Your task to perform on an android device: View the shopping cart on target. Add "bose soundlink" to the cart on target Image 0: 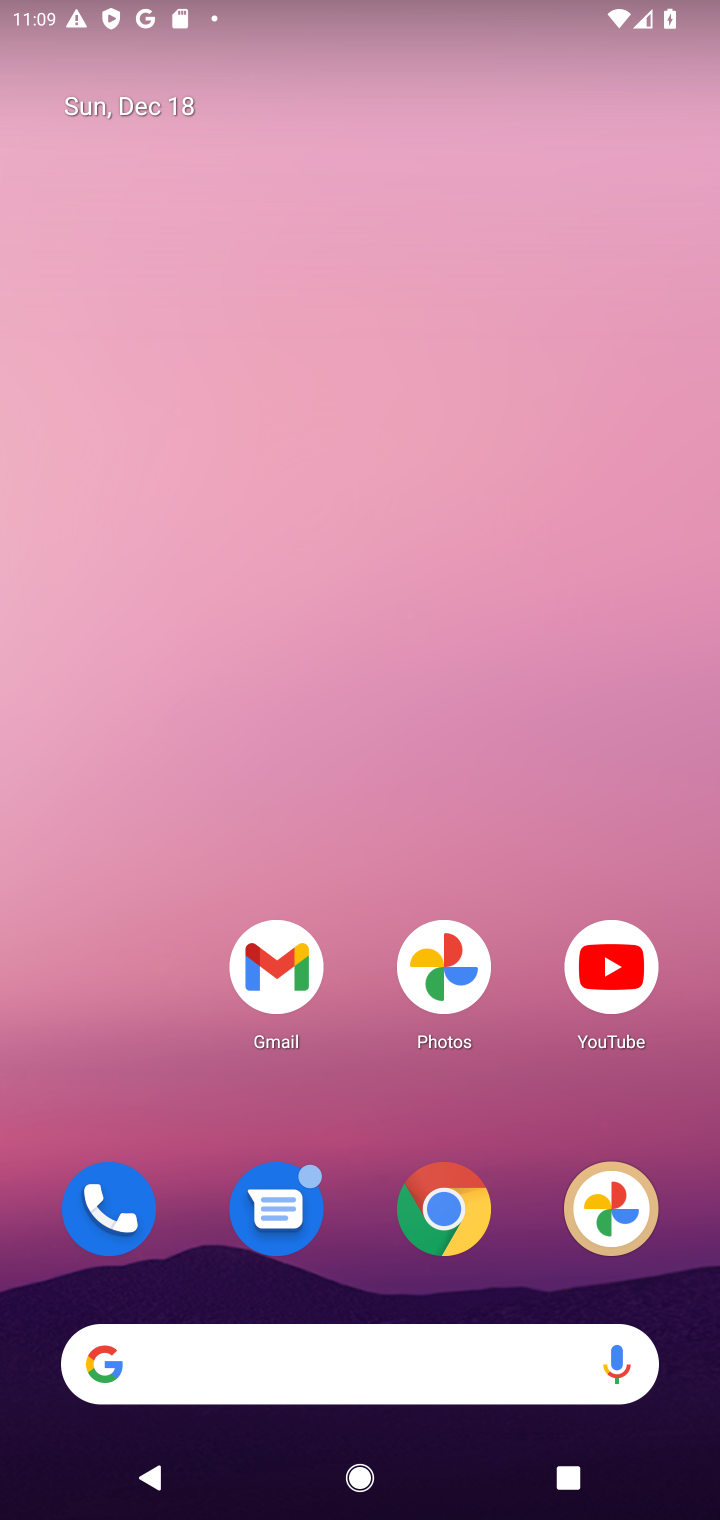
Step 0: click (439, 1220)
Your task to perform on an android device: View the shopping cart on target. Add "bose soundlink" to the cart on target Image 1: 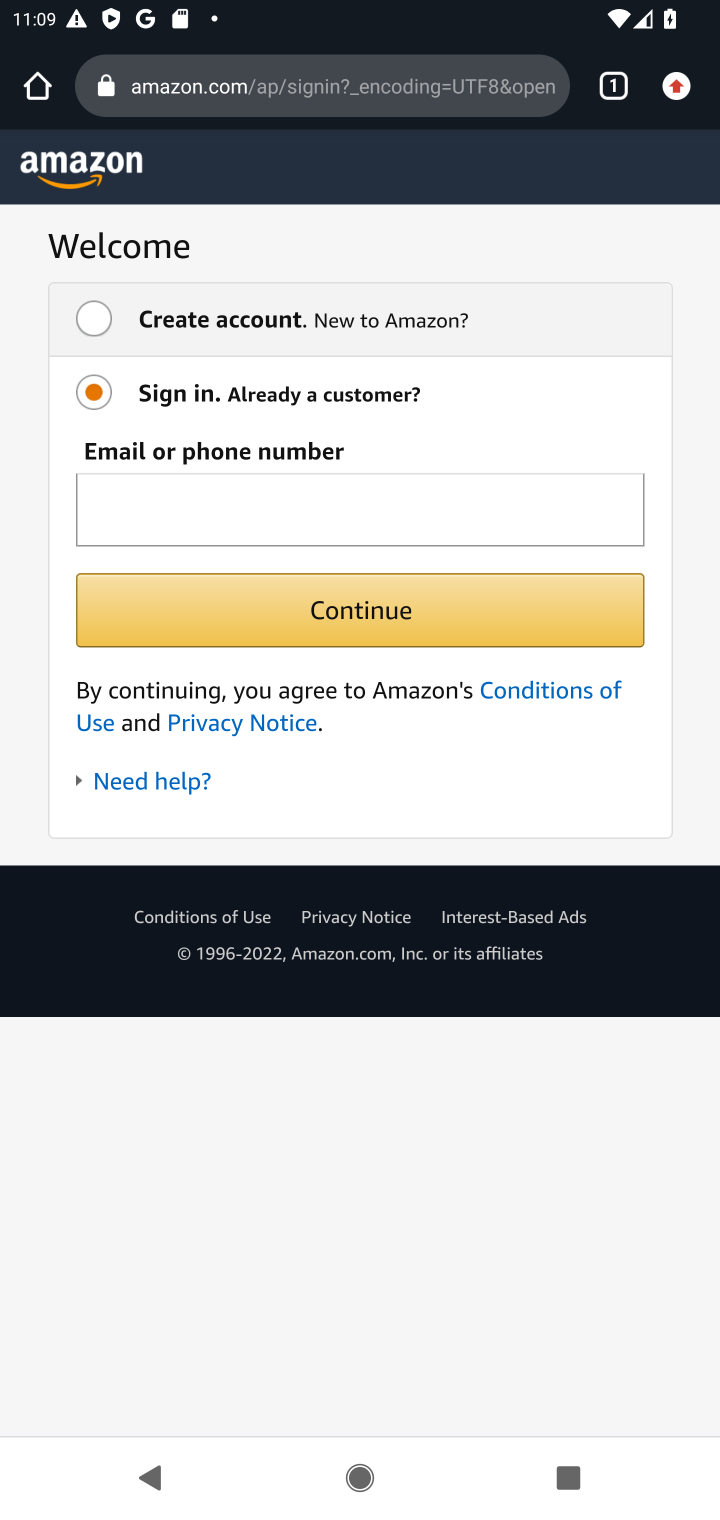
Step 1: click (397, 82)
Your task to perform on an android device: View the shopping cart on target. Add "bose soundlink" to the cart on target Image 2: 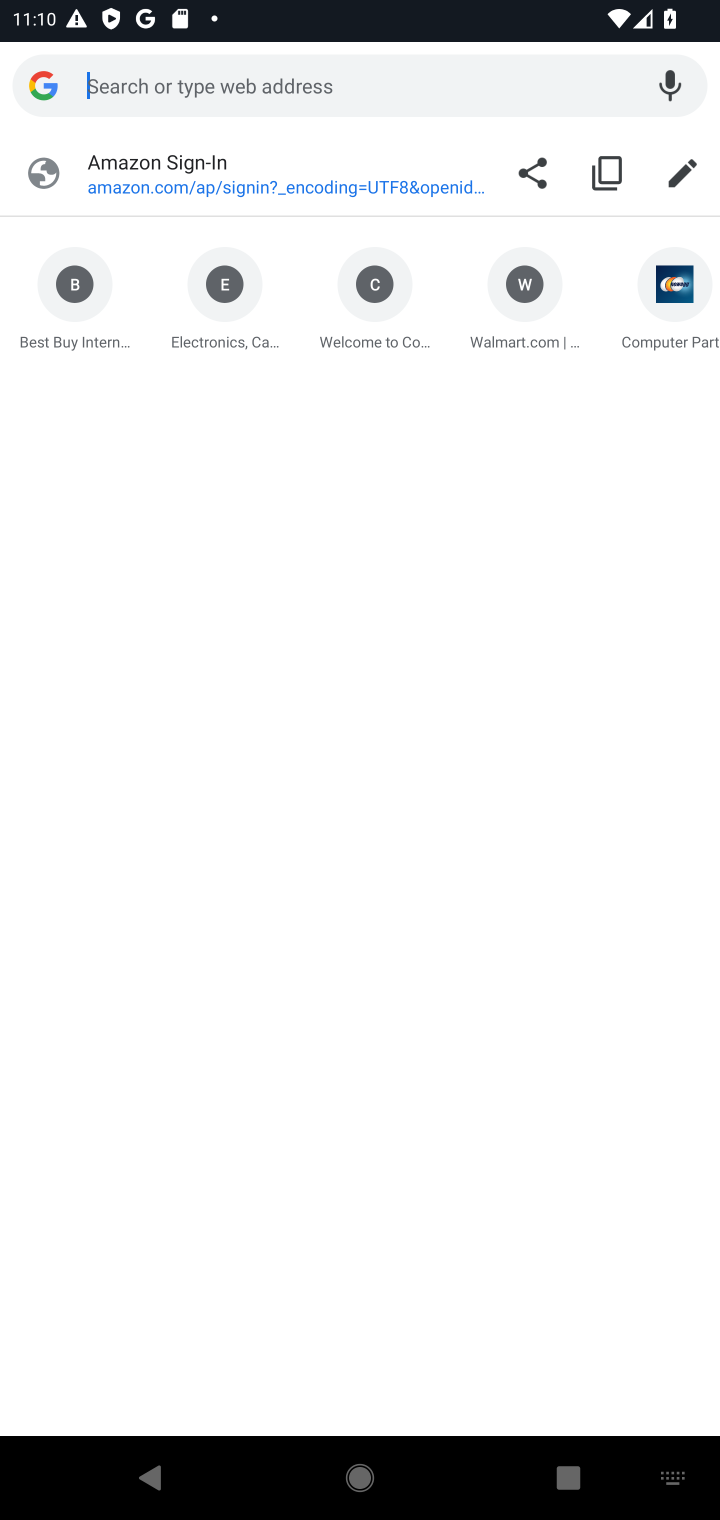
Step 2: type "TARGET"
Your task to perform on an android device: View the shopping cart on target. Add "bose soundlink" to the cart on target Image 3: 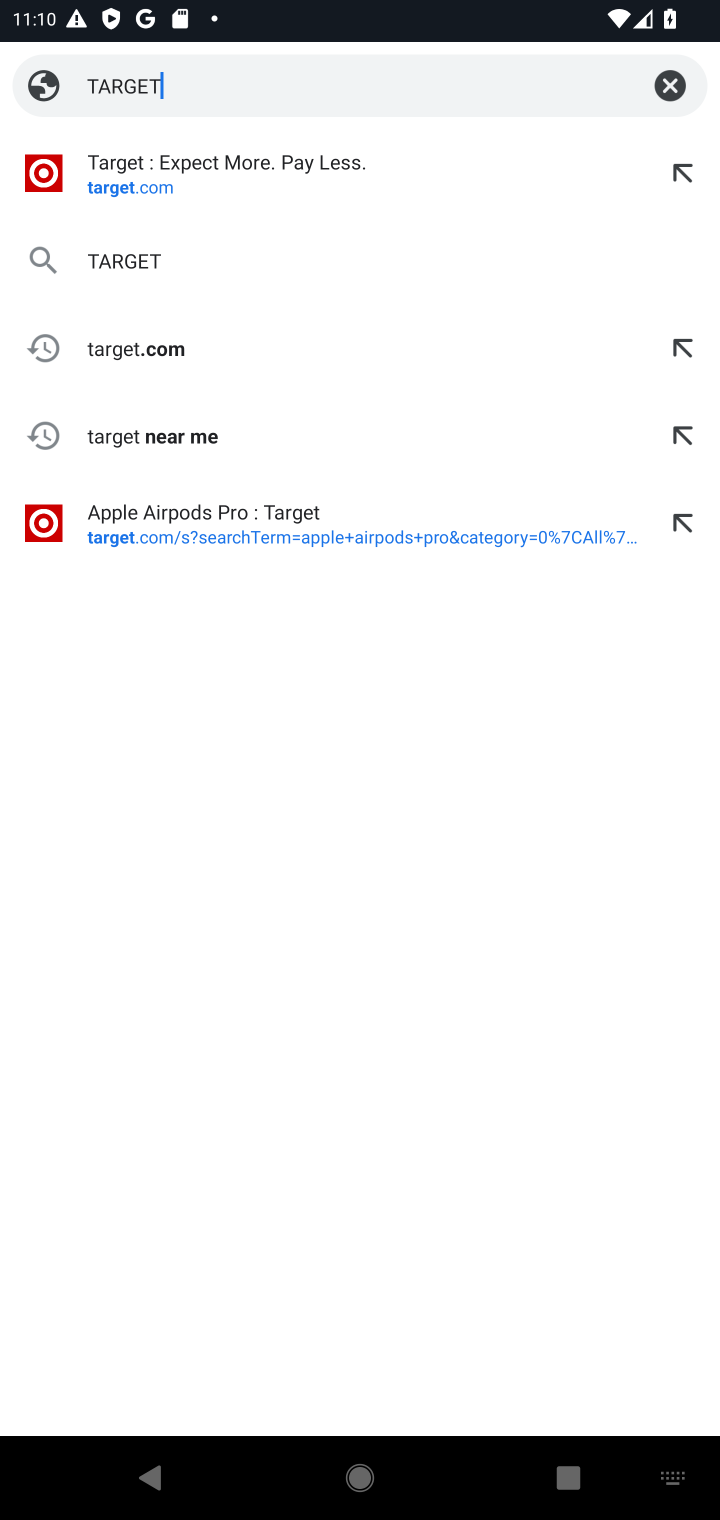
Step 3: click (180, 186)
Your task to perform on an android device: View the shopping cart on target. Add "bose soundlink" to the cart on target Image 4: 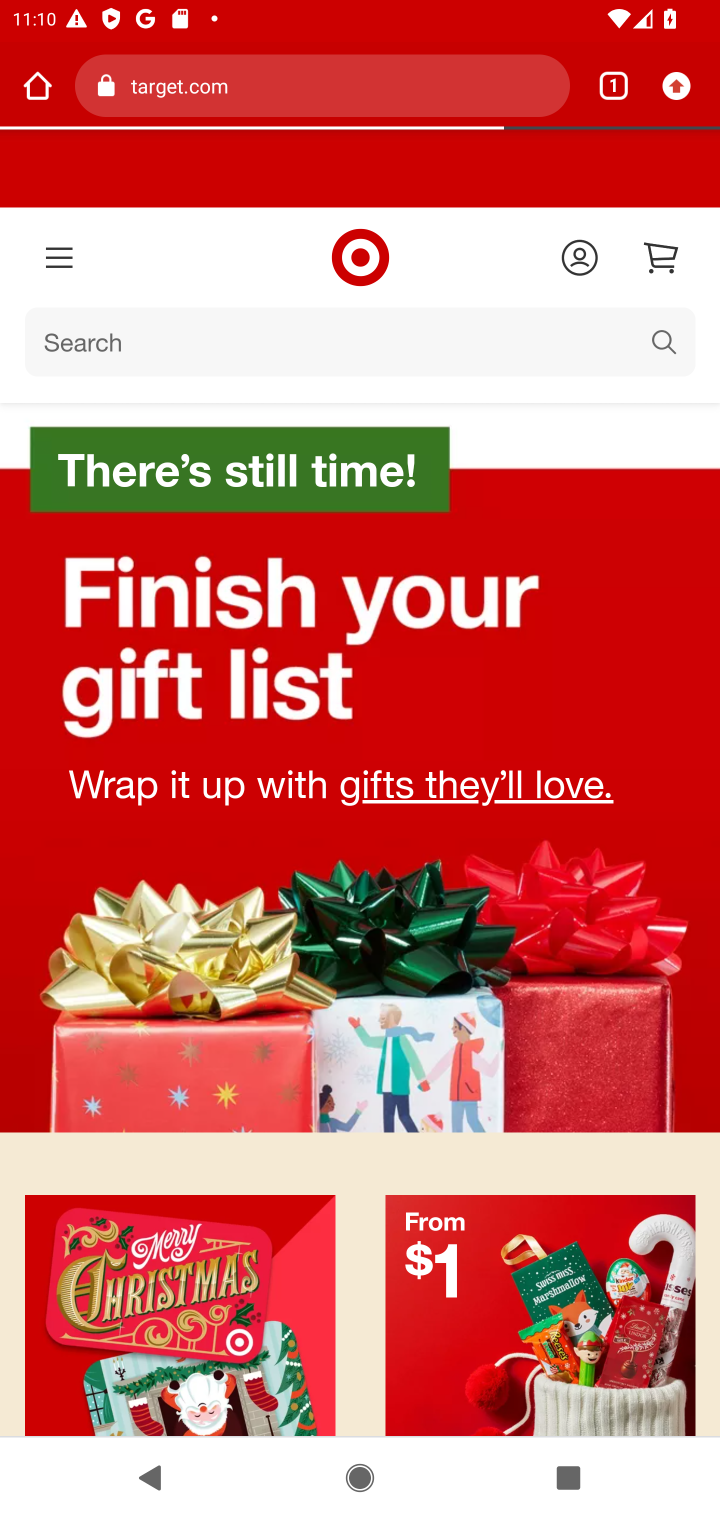
Step 4: click (353, 350)
Your task to perform on an android device: View the shopping cart on target. Add "bose soundlink" to the cart on target Image 5: 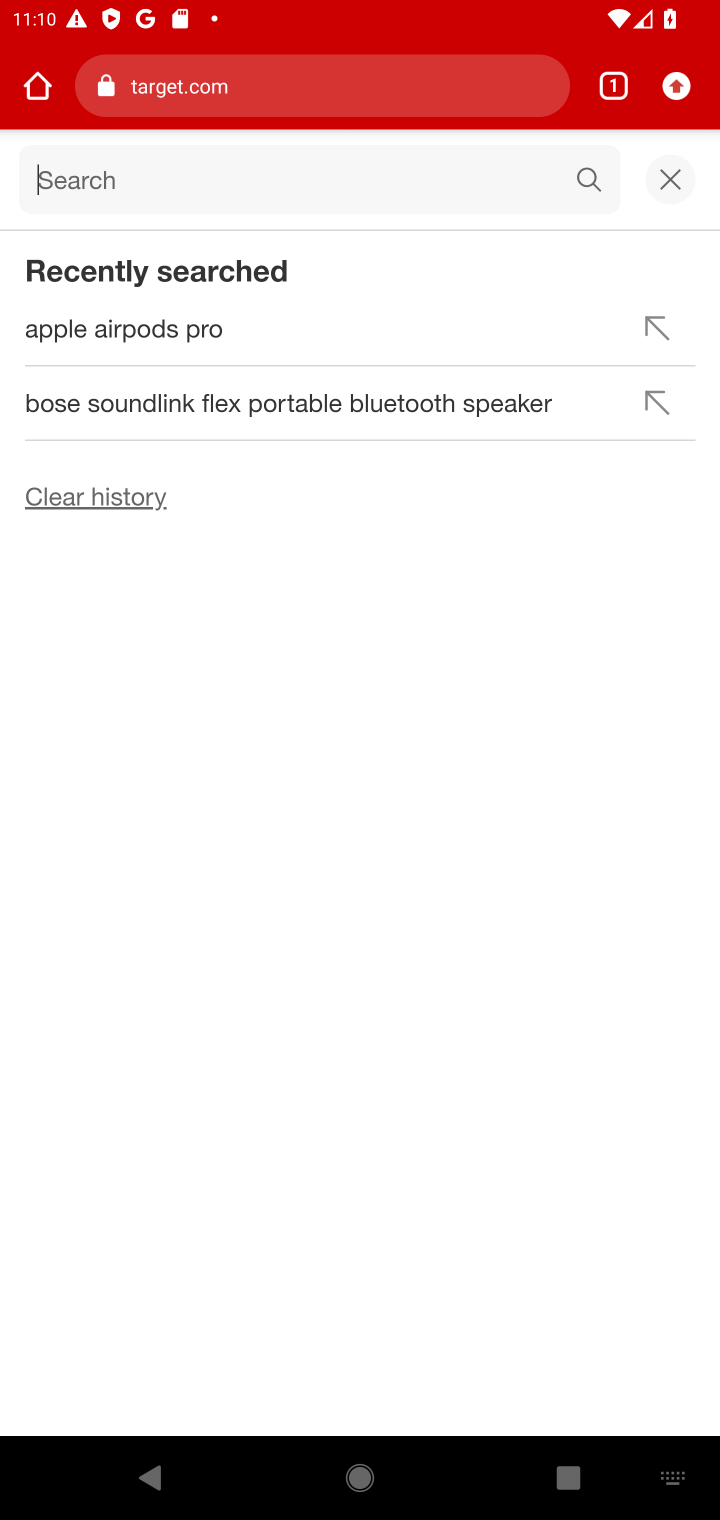
Step 5: click (357, 176)
Your task to perform on an android device: View the shopping cart on target. Add "bose soundlink" to the cart on target Image 6: 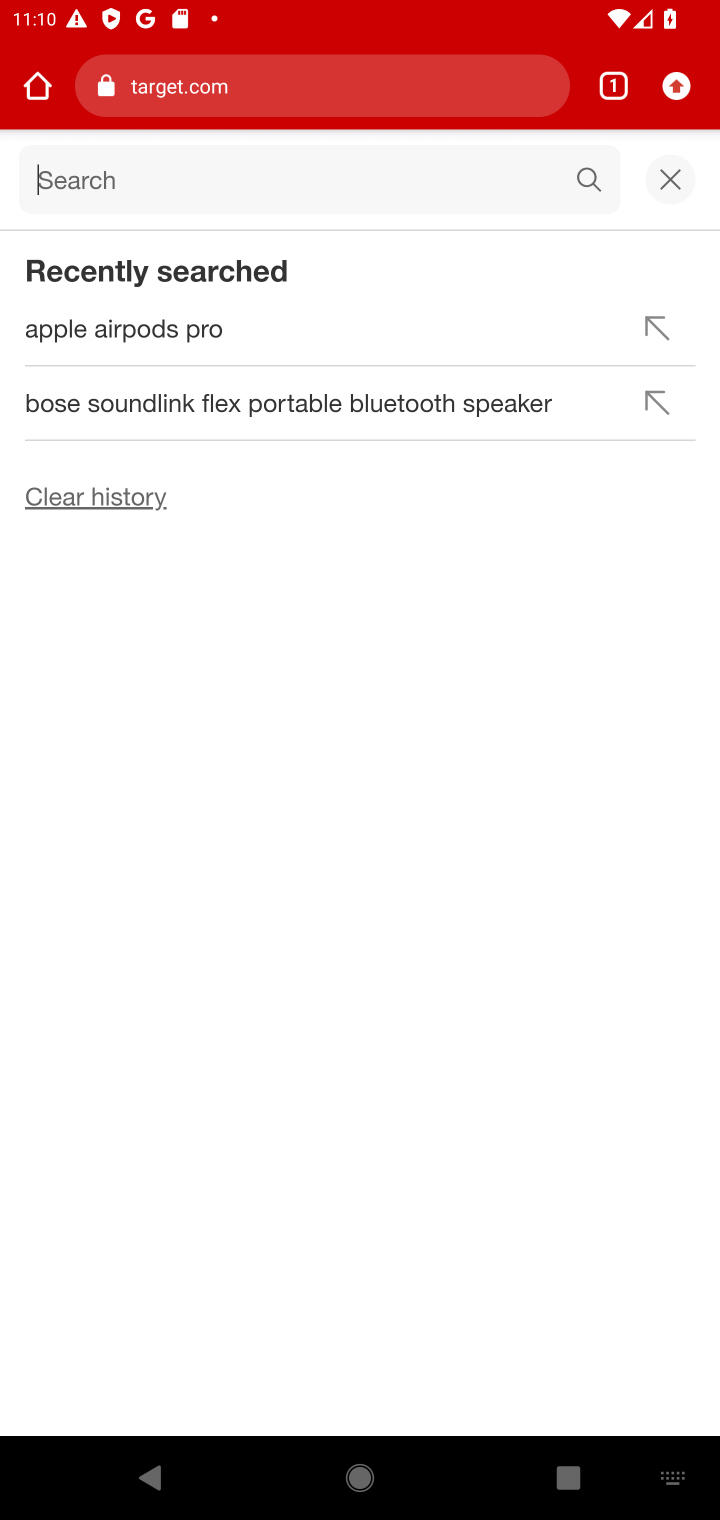
Step 6: type "BOSE SOUNDLINK"
Your task to perform on an android device: View the shopping cart on target. Add "bose soundlink" to the cart on target Image 7: 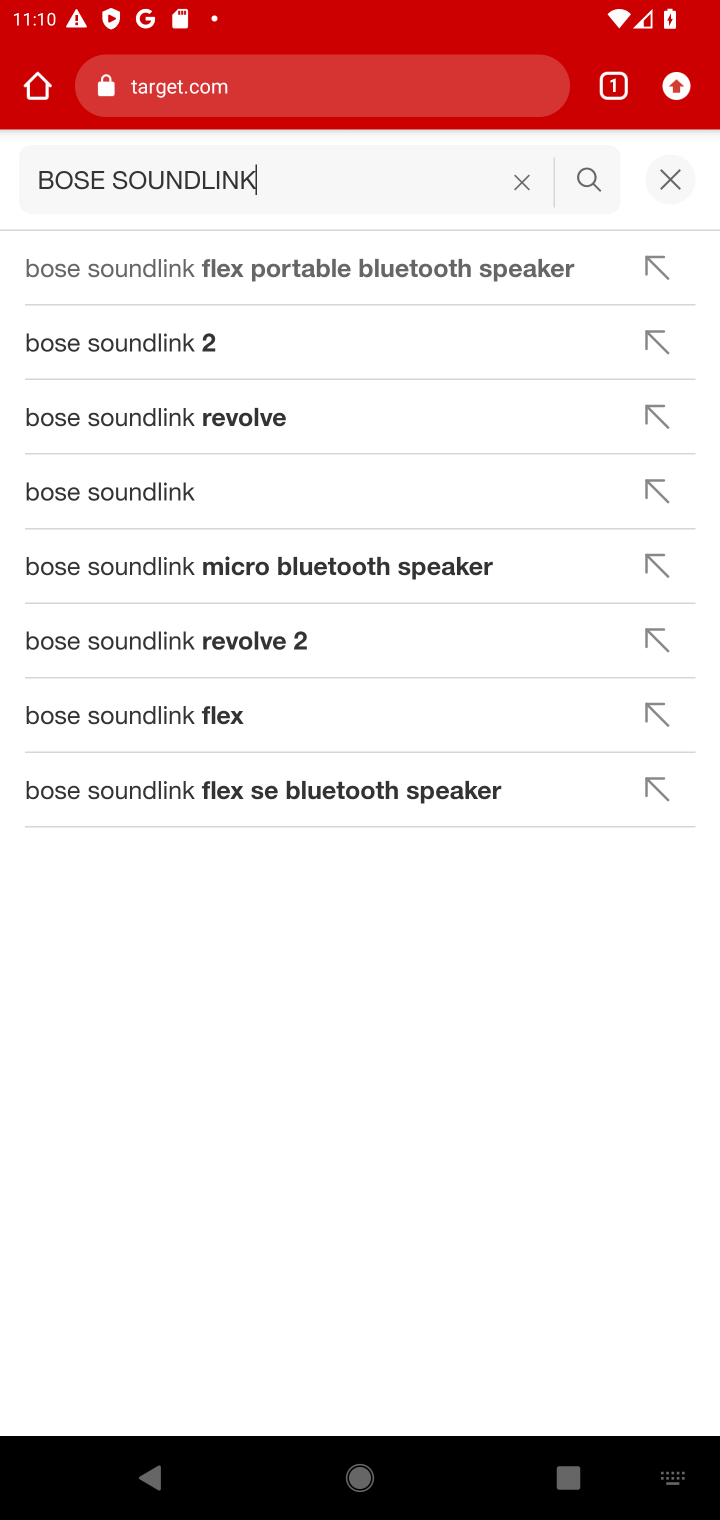
Step 7: click (208, 282)
Your task to perform on an android device: View the shopping cart on target. Add "bose soundlink" to the cart on target Image 8: 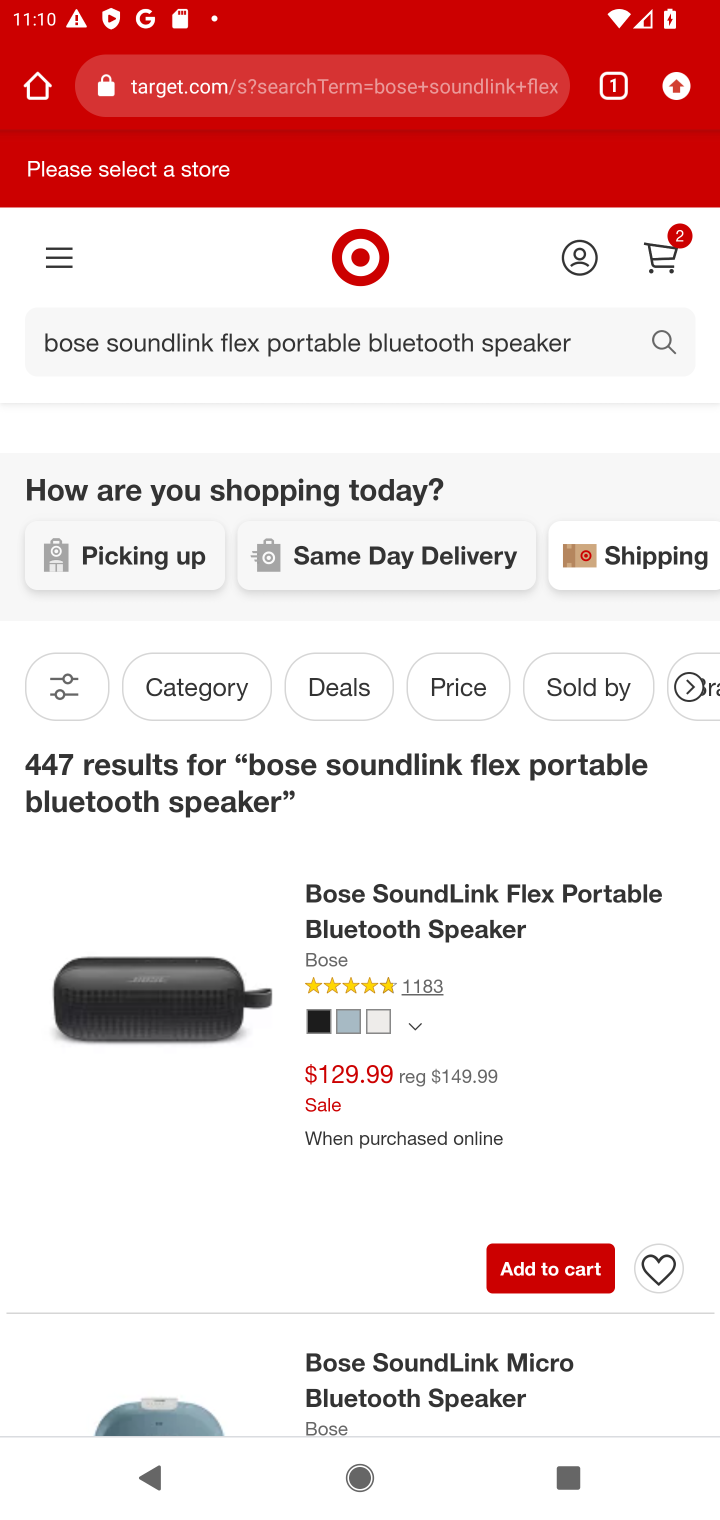
Step 8: click (538, 1278)
Your task to perform on an android device: View the shopping cart on target. Add "bose soundlink" to the cart on target Image 9: 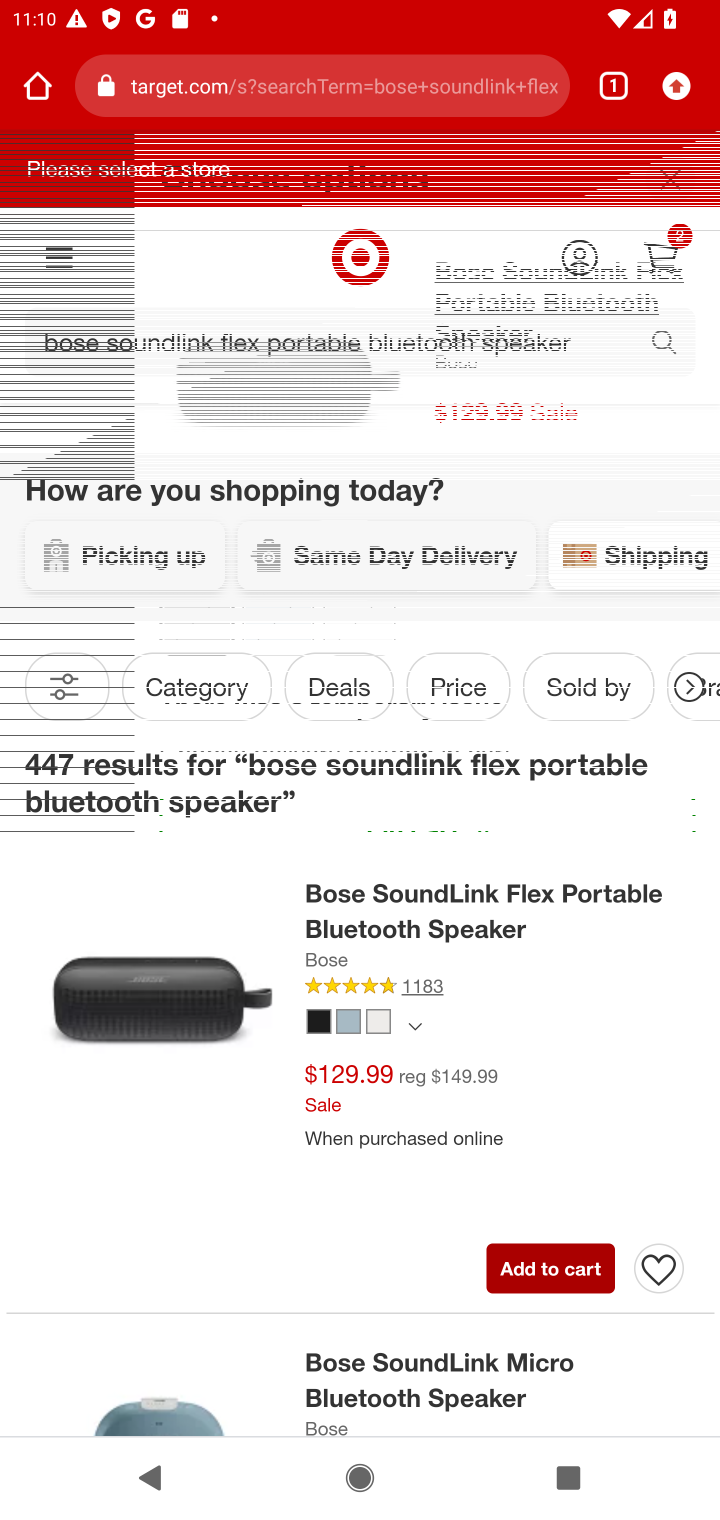
Step 9: click (664, 256)
Your task to perform on an android device: View the shopping cart on target. Add "bose soundlink" to the cart on target Image 10: 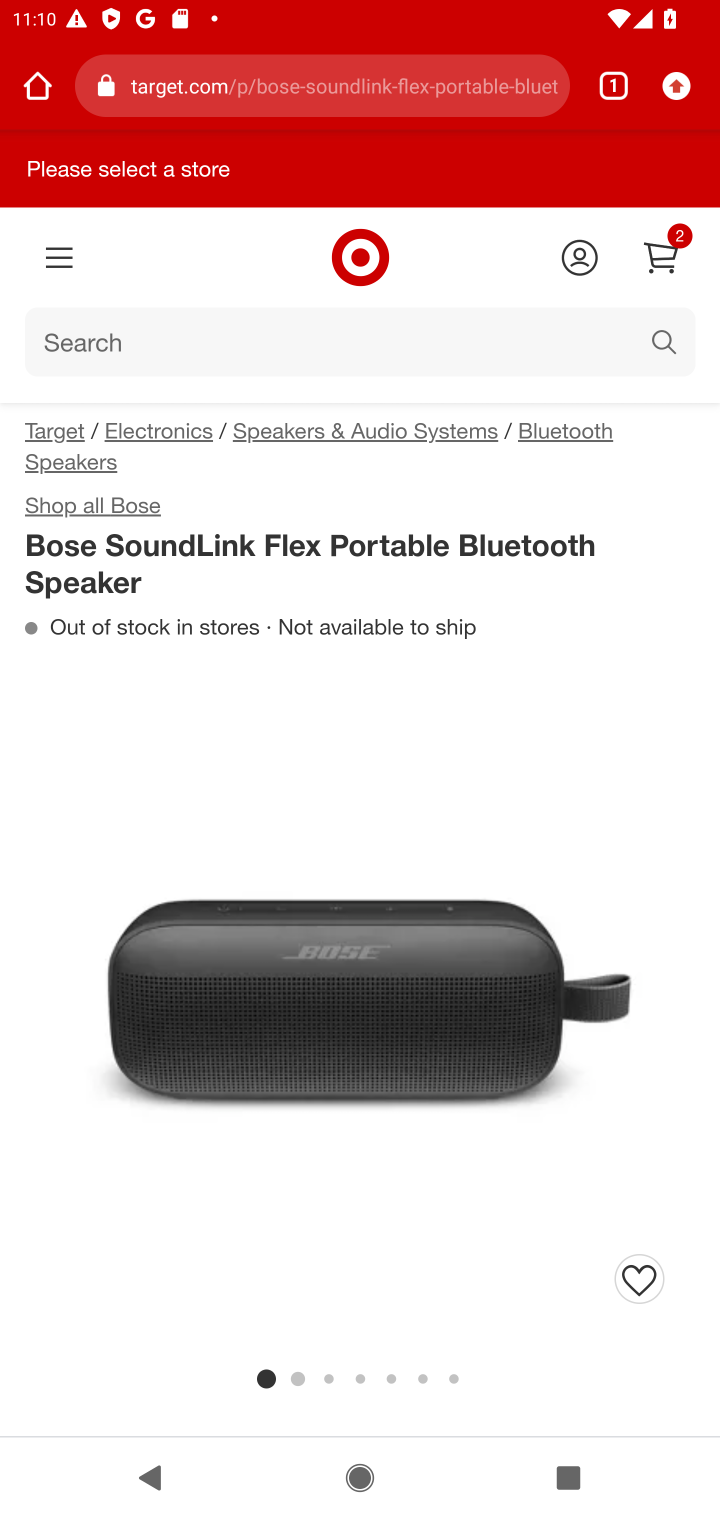
Step 10: task complete